Your task to perform on an android device: see creations saved in the google photos Image 0: 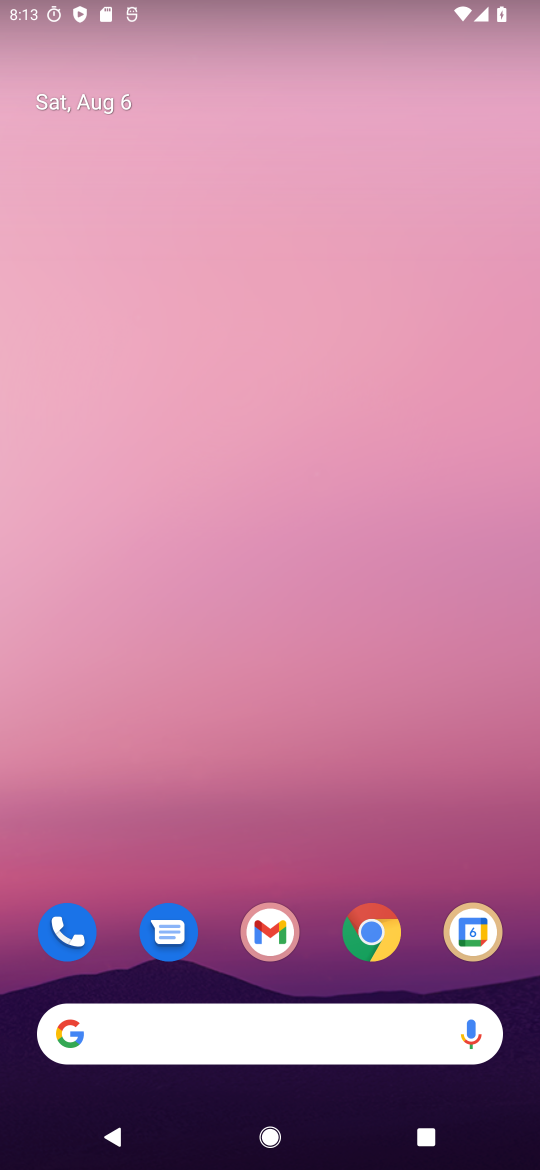
Step 0: press home button
Your task to perform on an android device: see creations saved in the google photos Image 1: 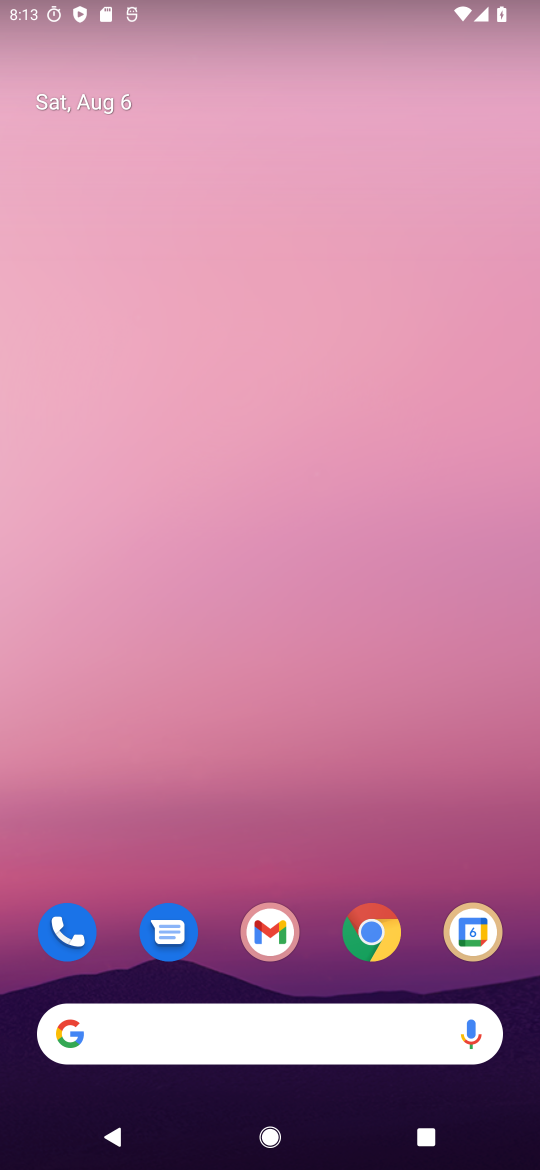
Step 1: drag from (182, 992) to (374, 65)
Your task to perform on an android device: see creations saved in the google photos Image 2: 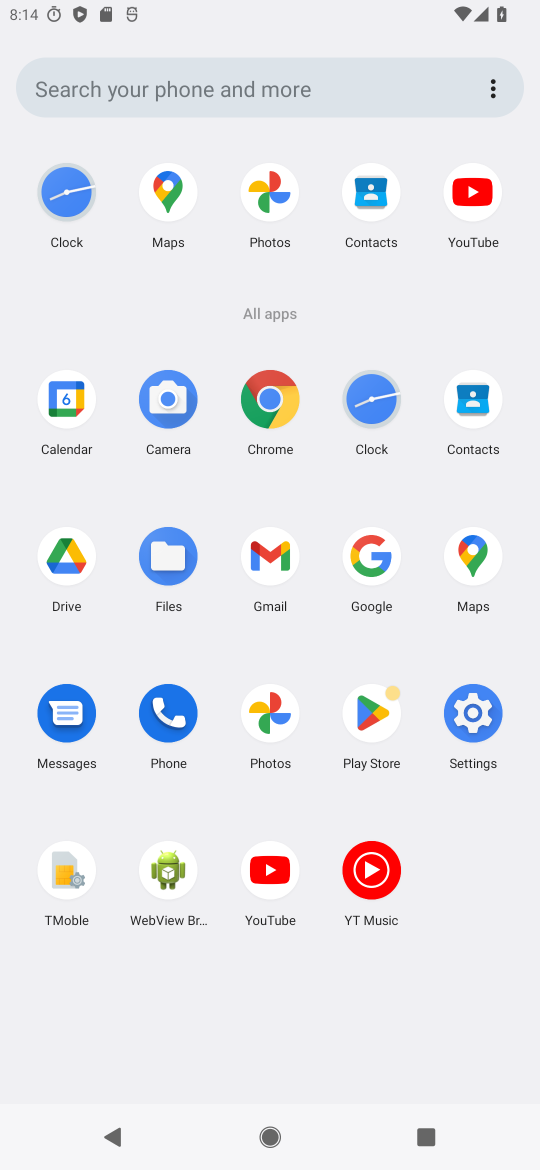
Step 2: click (271, 710)
Your task to perform on an android device: see creations saved in the google photos Image 3: 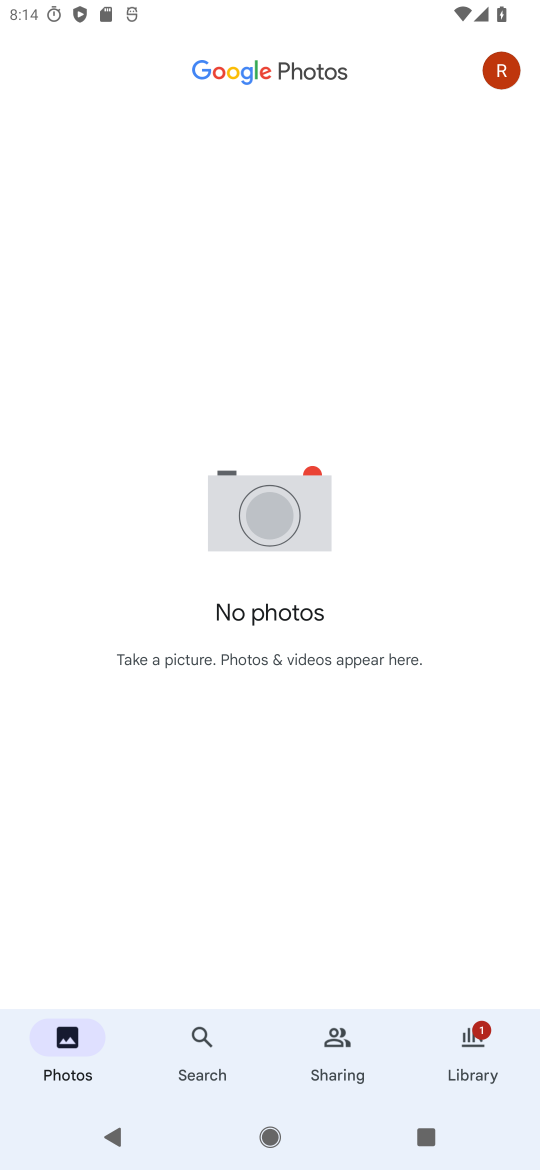
Step 3: click (202, 1048)
Your task to perform on an android device: see creations saved in the google photos Image 4: 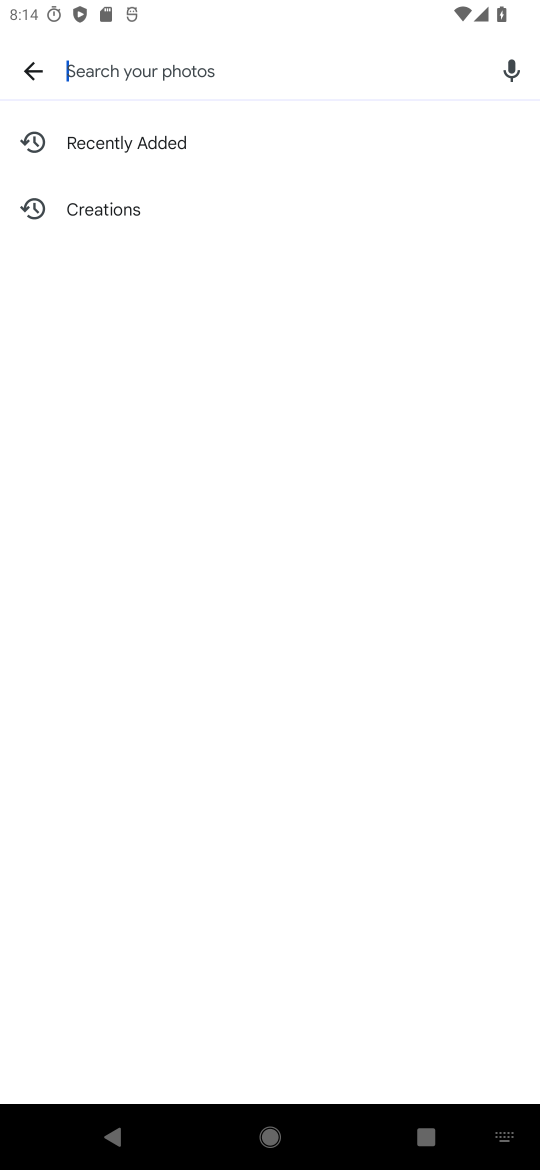
Step 4: click (106, 191)
Your task to perform on an android device: see creations saved in the google photos Image 5: 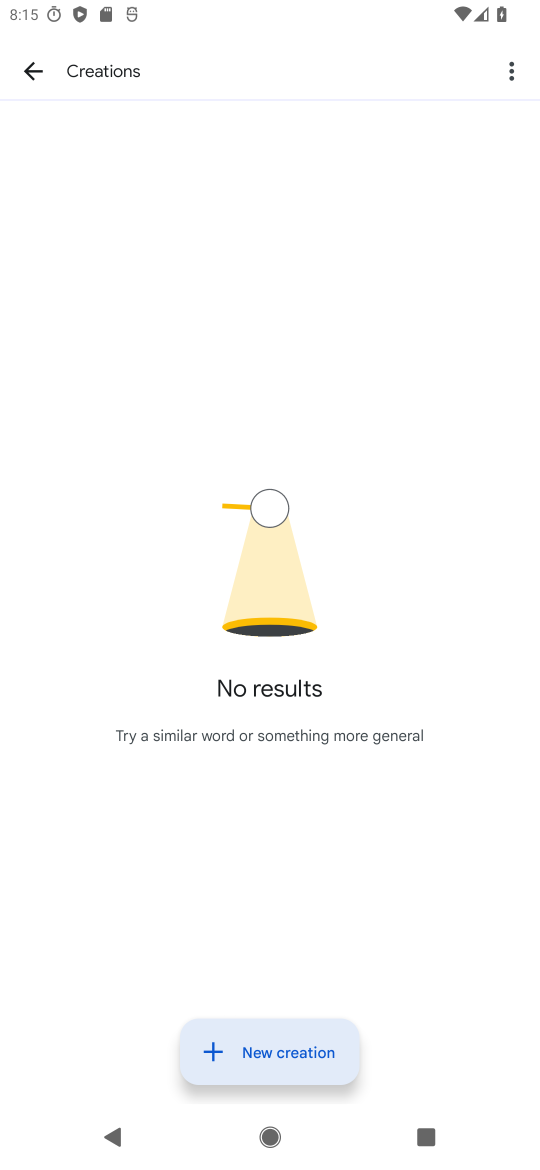
Step 5: task complete